Your task to perform on an android device: What's a good restaurant in Seattle? Image 0: 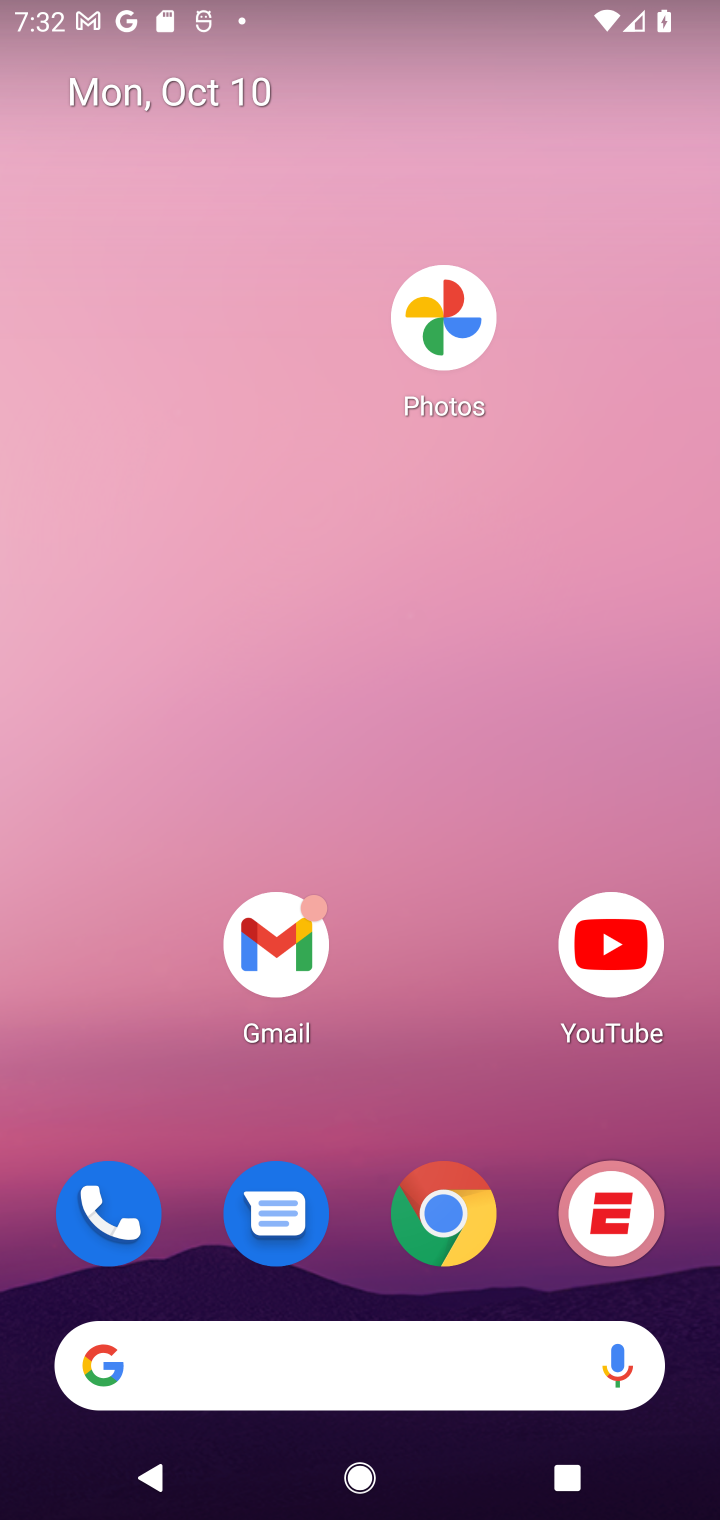
Step 0: click (343, 1381)
Your task to perform on an android device: What's a good restaurant in Seattle? Image 1: 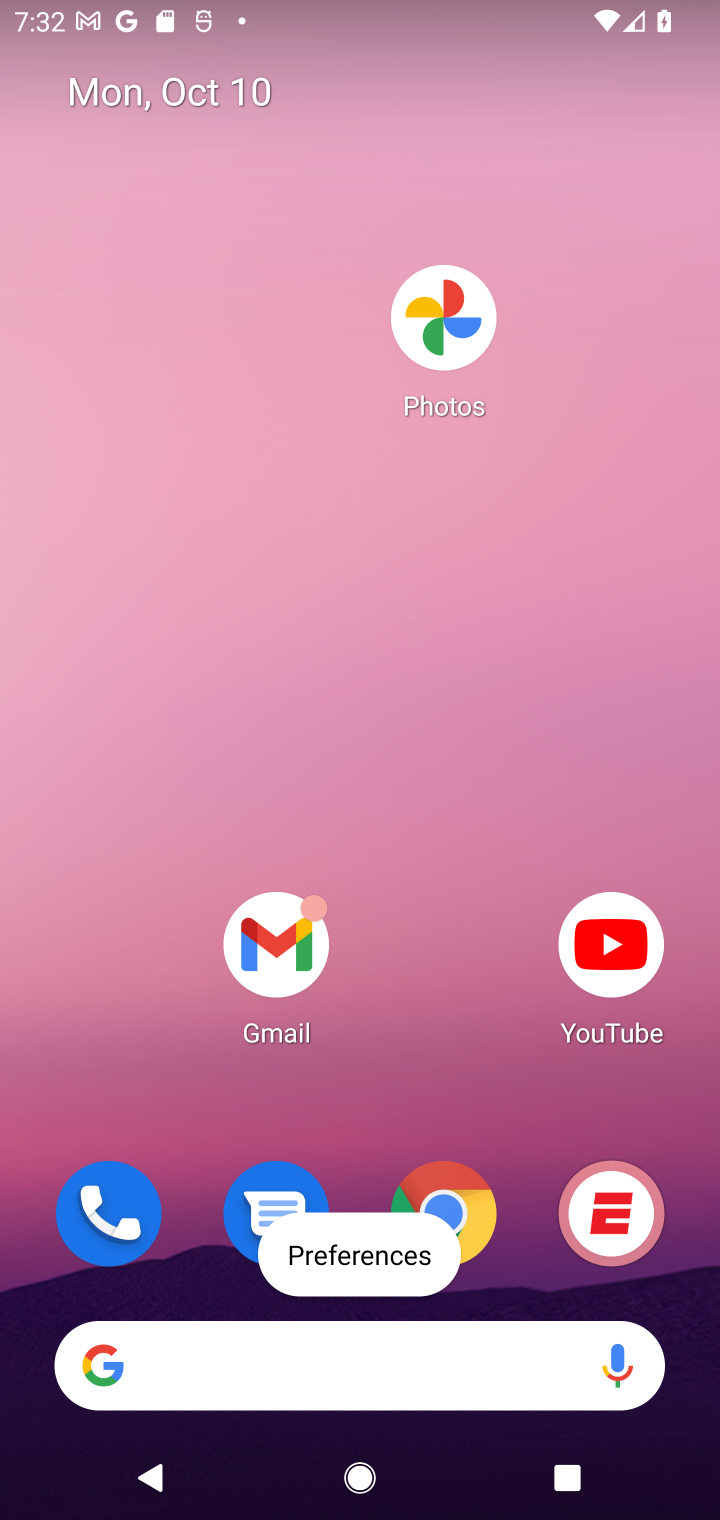
Step 1: click (343, 1381)
Your task to perform on an android device: What's a good restaurant in Seattle? Image 2: 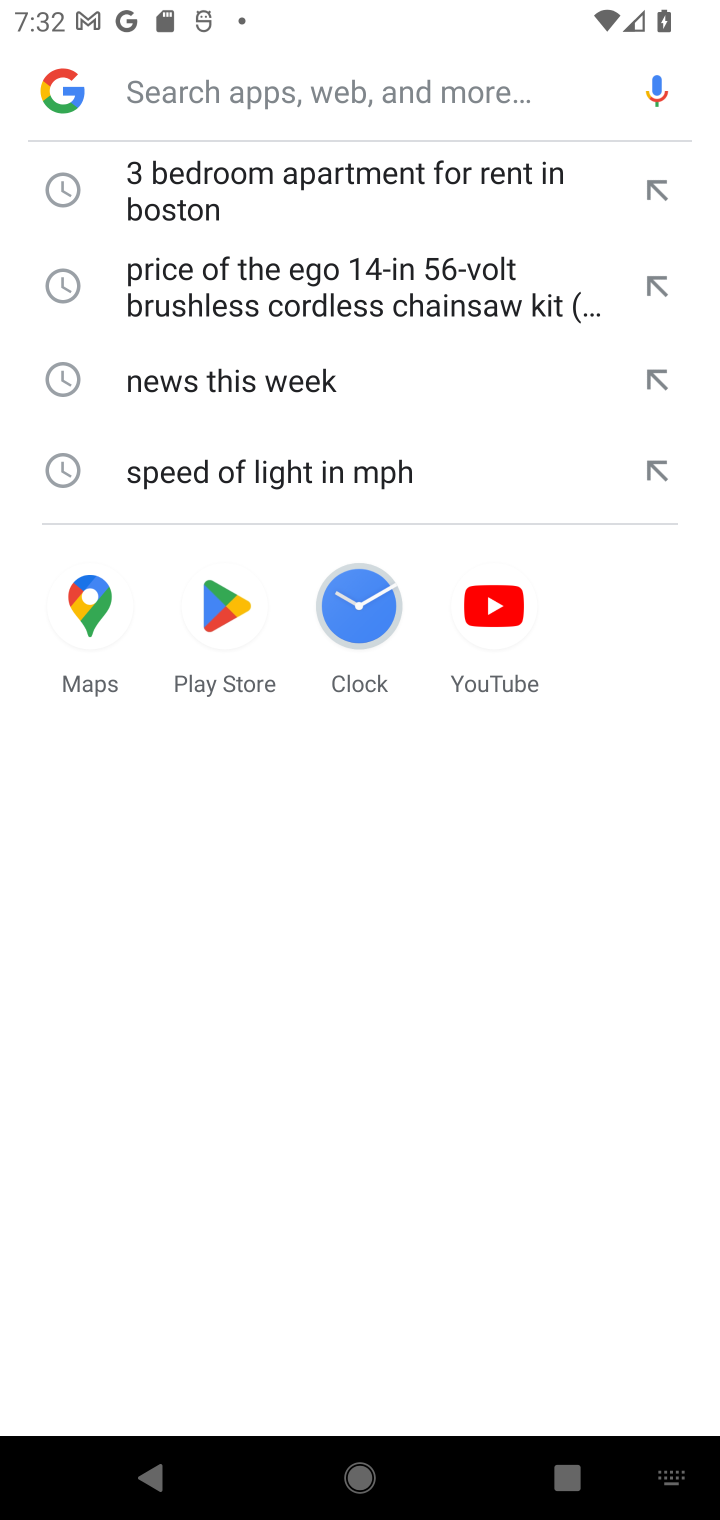
Step 2: type "good restaurant in Seattle"
Your task to perform on an android device: What's a good restaurant in Seattle? Image 3: 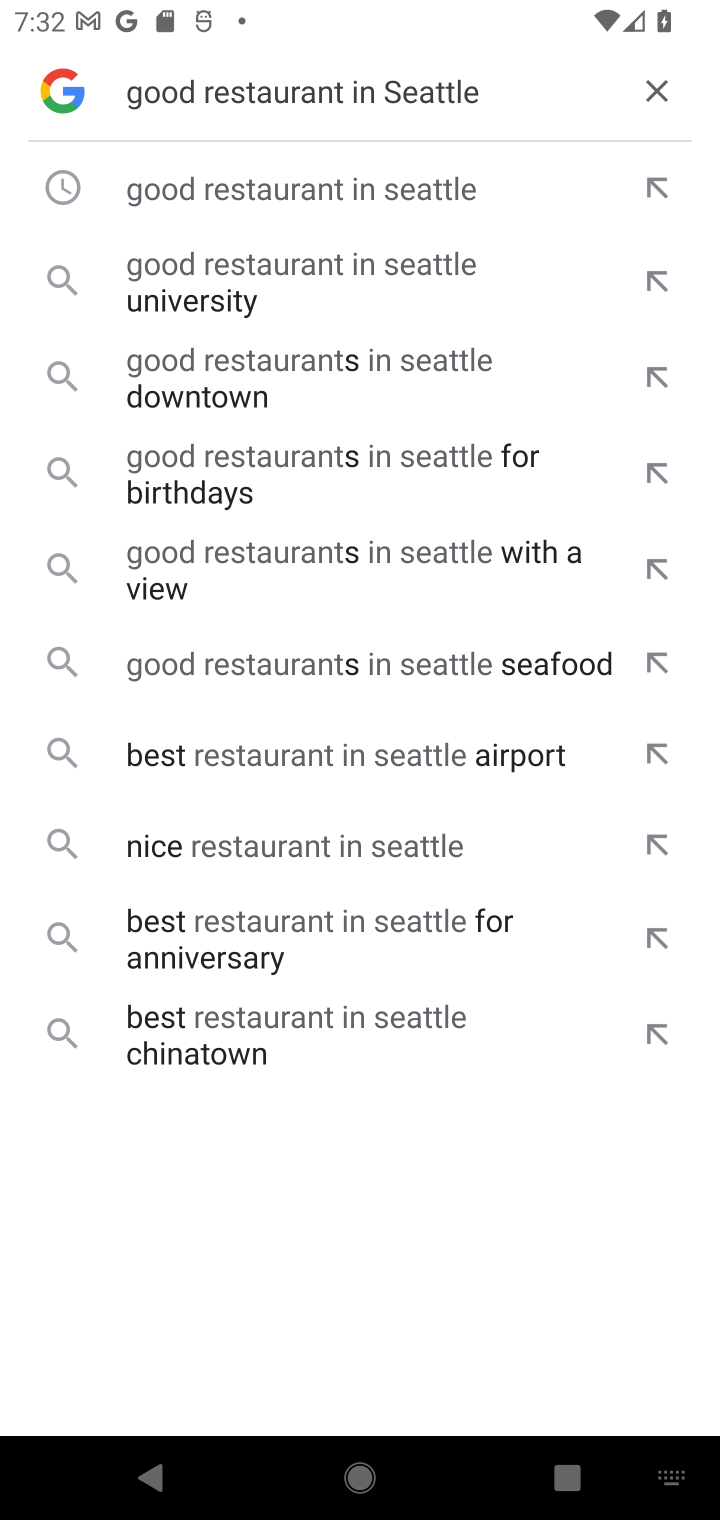
Step 3: click (214, 207)
Your task to perform on an android device: What's a good restaurant in Seattle? Image 4: 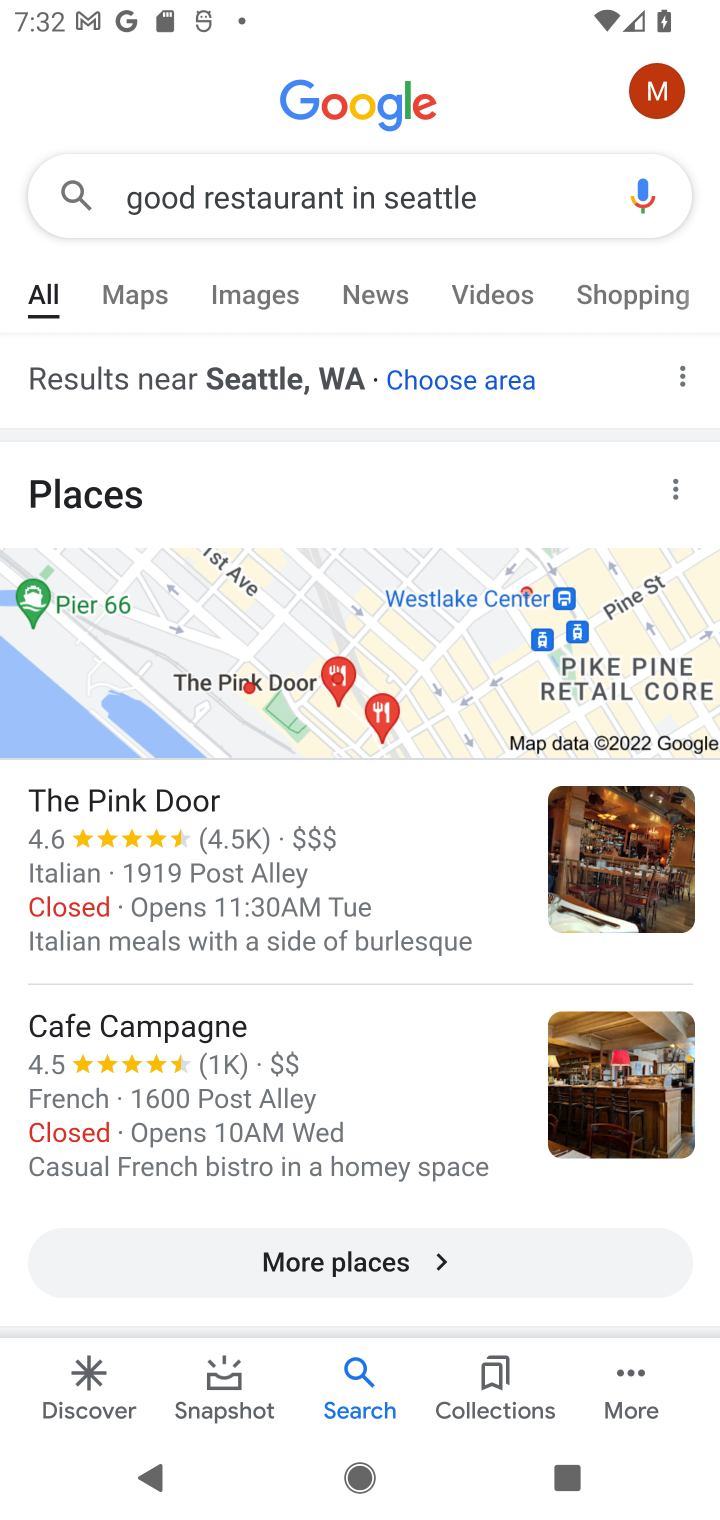
Step 4: task complete